Your task to perform on an android device: Open Google Chrome Image 0: 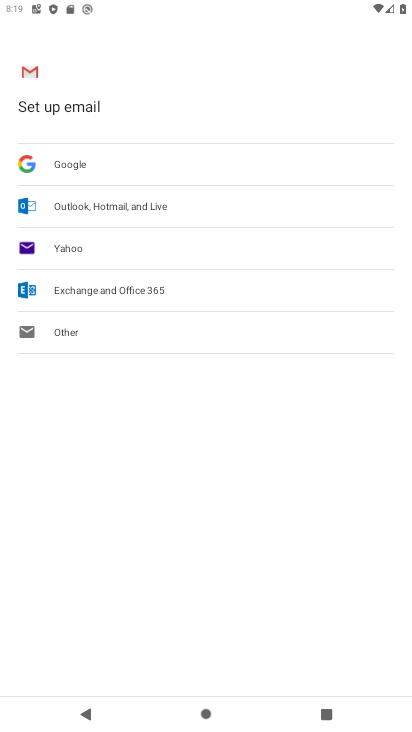
Step 0: press home button
Your task to perform on an android device: Open Google Chrome Image 1: 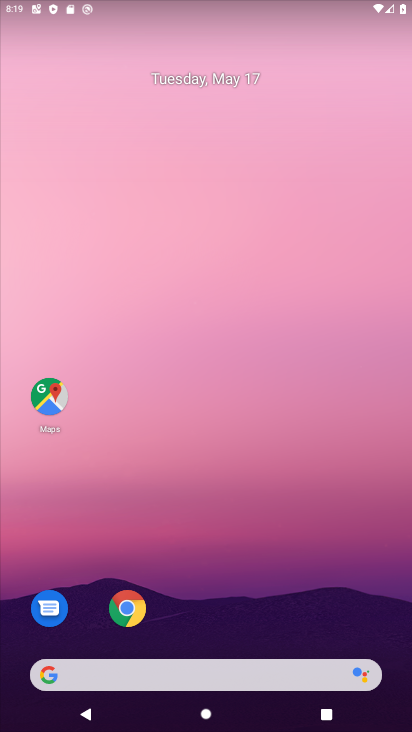
Step 1: click (134, 607)
Your task to perform on an android device: Open Google Chrome Image 2: 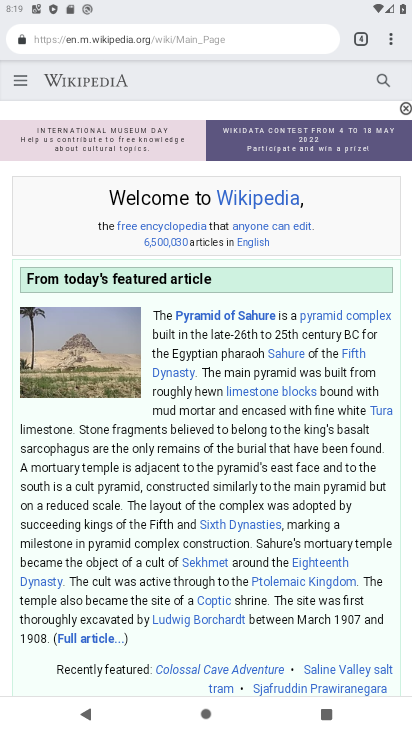
Step 2: task complete